Your task to perform on an android device: Is it going to rain tomorrow? Image 0: 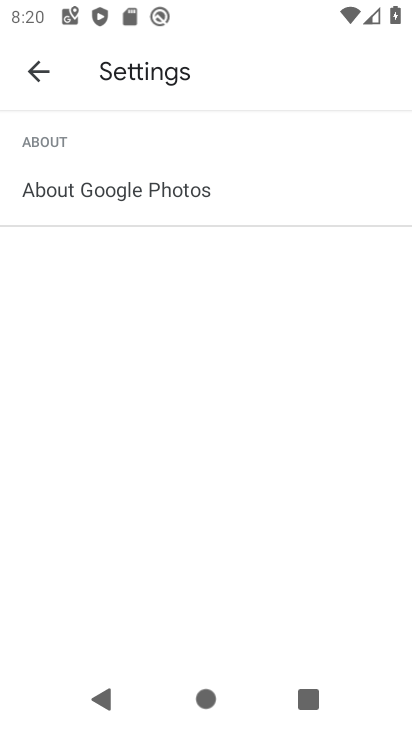
Step 0: press home button
Your task to perform on an android device: Is it going to rain tomorrow? Image 1: 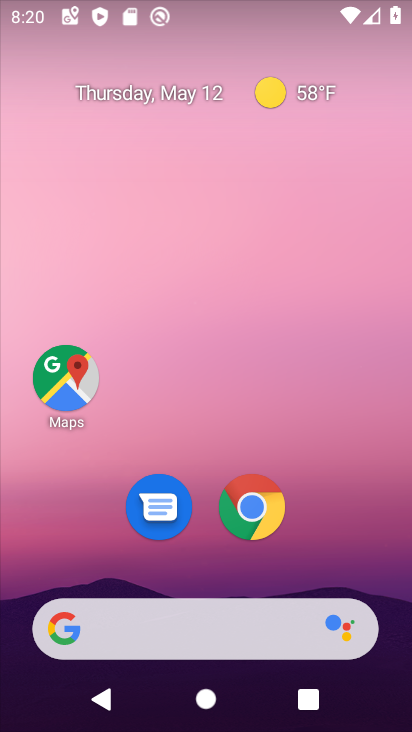
Step 1: drag from (211, 580) to (209, 204)
Your task to perform on an android device: Is it going to rain tomorrow? Image 2: 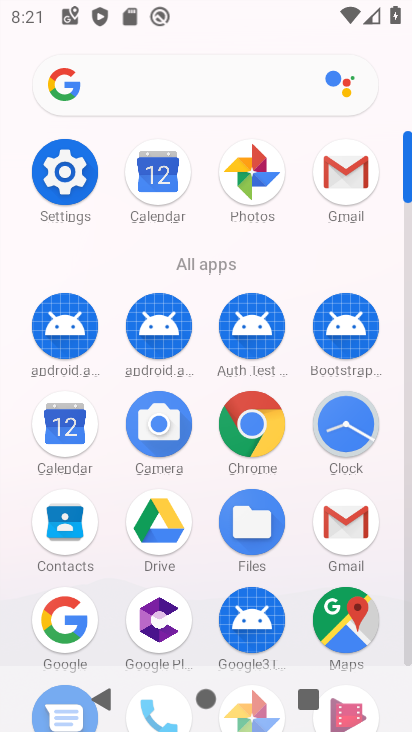
Step 2: click (64, 601)
Your task to perform on an android device: Is it going to rain tomorrow? Image 3: 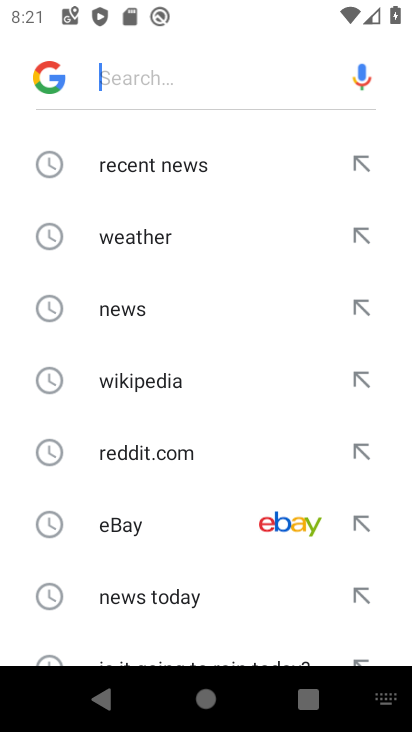
Step 3: click (159, 237)
Your task to perform on an android device: Is it going to rain tomorrow? Image 4: 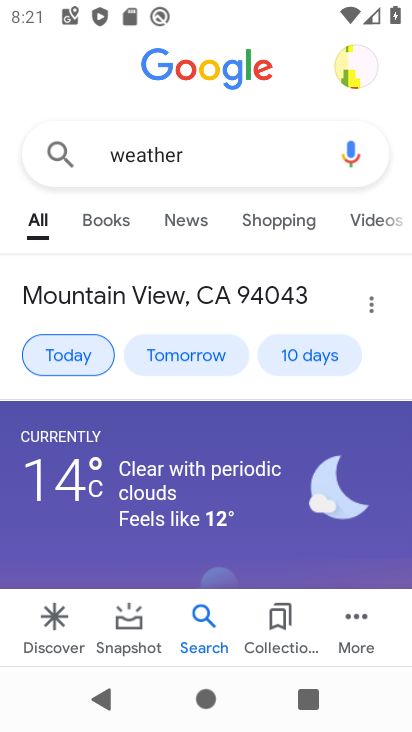
Step 4: click (177, 359)
Your task to perform on an android device: Is it going to rain tomorrow? Image 5: 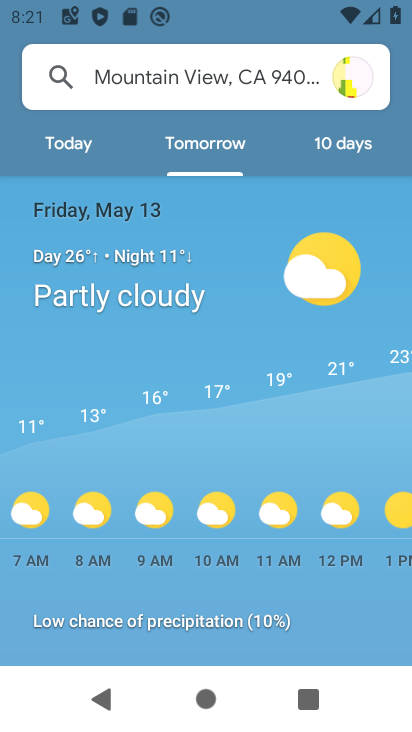
Step 5: task complete